Your task to perform on an android device: turn on sleep mode Image 0: 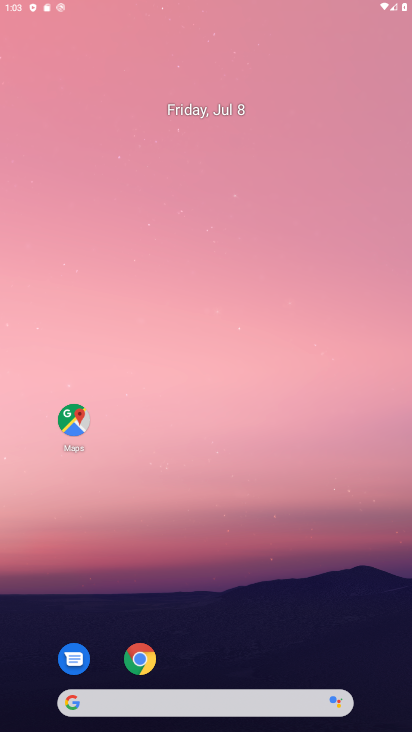
Step 0: click (83, 417)
Your task to perform on an android device: turn on sleep mode Image 1: 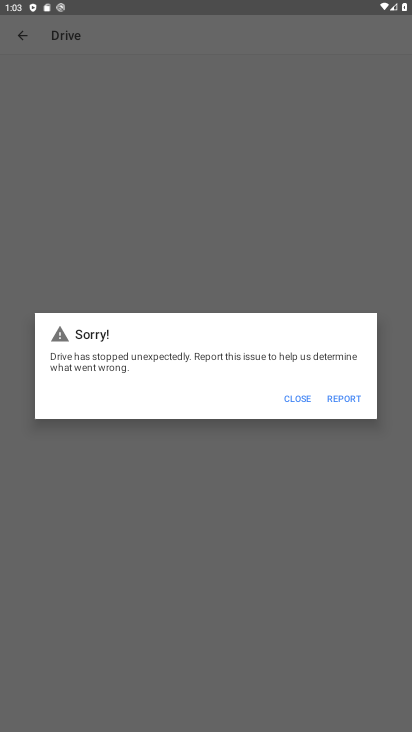
Step 1: click (356, 396)
Your task to perform on an android device: turn on sleep mode Image 2: 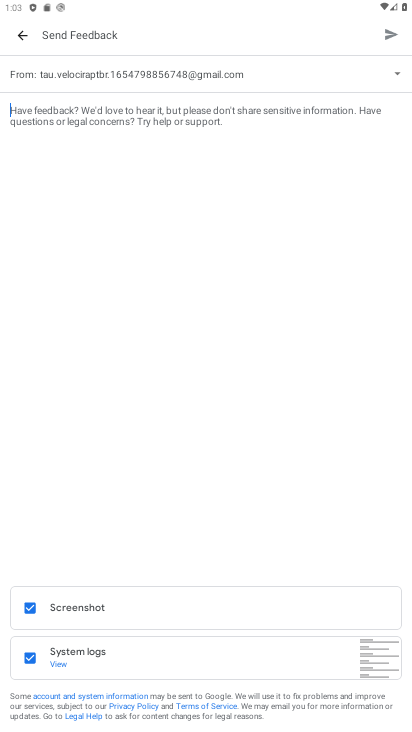
Step 2: drag from (159, 7) to (175, 469)
Your task to perform on an android device: turn on sleep mode Image 3: 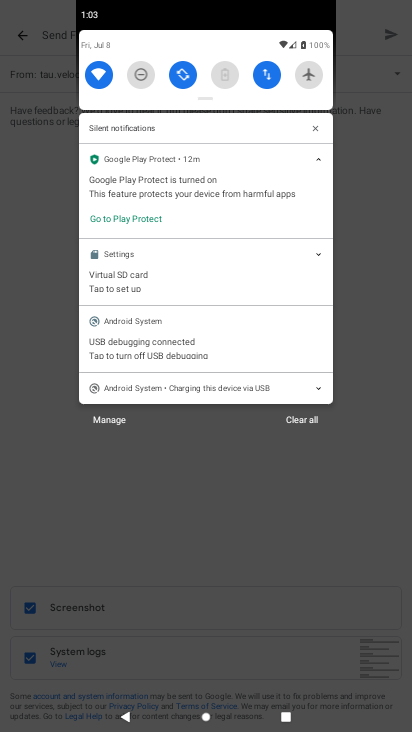
Step 3: drag from (203, 89) to (235, 589)
Your task to perform on an android device: turn on sleep mode Image 4: 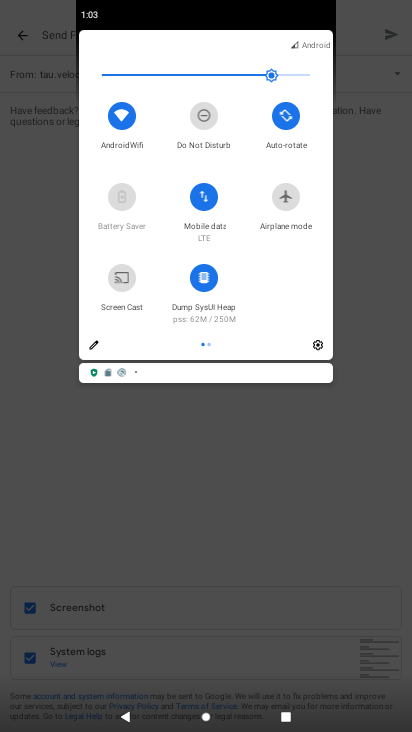
Step 4: click (96, 342)
Your task to perform on an android device: turn on sleep mode Image 5: 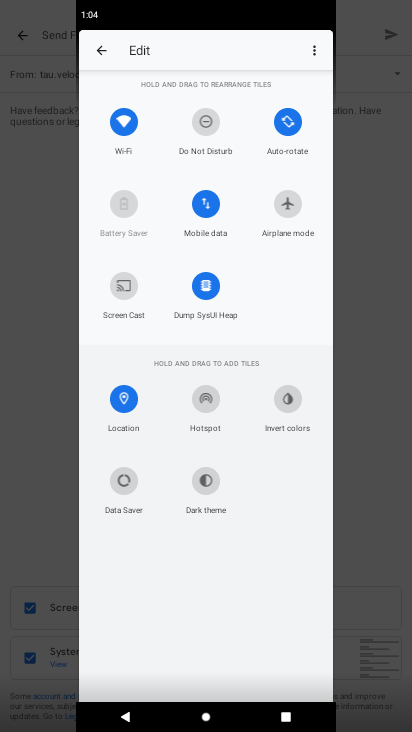
Step 5: task complete